Your task to perform on an android device: Go to Amazon Image 0: 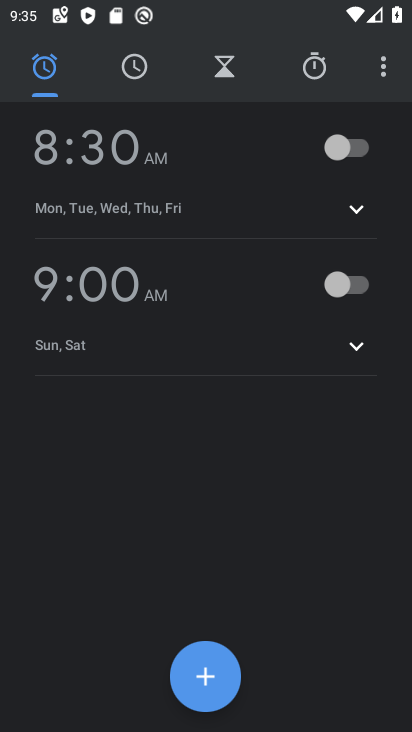
Step 0: press home button
Your task to perform on an android device: Go to Amazon Image 1: 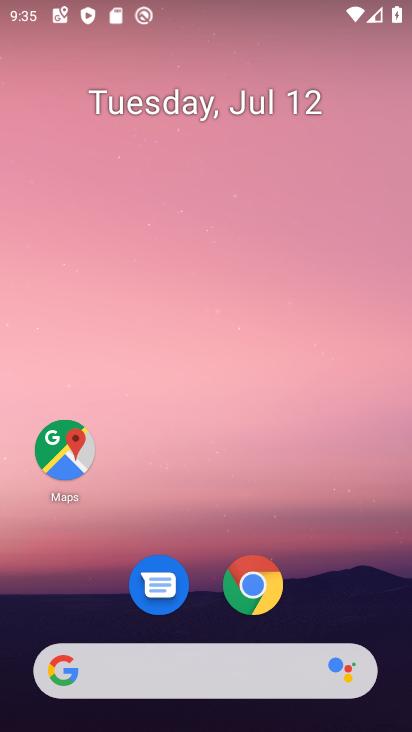
Step 1: click (263, 583)
Your task to perform on an android device: Go to Amazon Image 2: 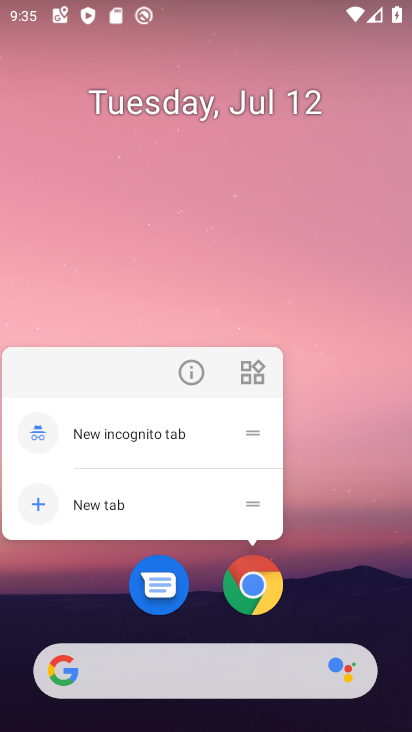
Step 2: click (258, 585)
Your task to perform on an android device: Go to Amazon Image 3: 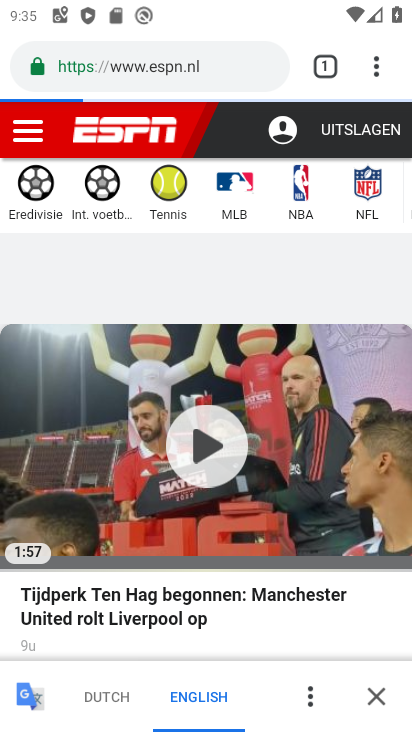
Step 3: drag from (379, 75) to (236, 128)
Your task to perform on an android device: Go to Amazon Image 4: 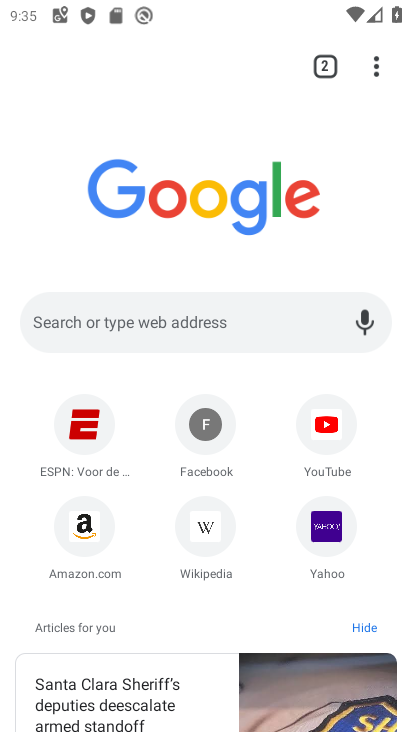
Step 4: click (87, 531)
Your task to perform on an android device: Go to Amazon Image 5: 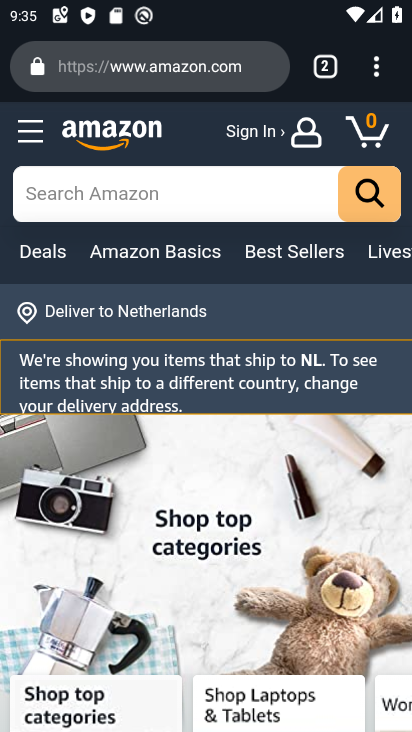
Step 5: task complete